Your task to perform on an android device: Open accessibility settings Image 0: 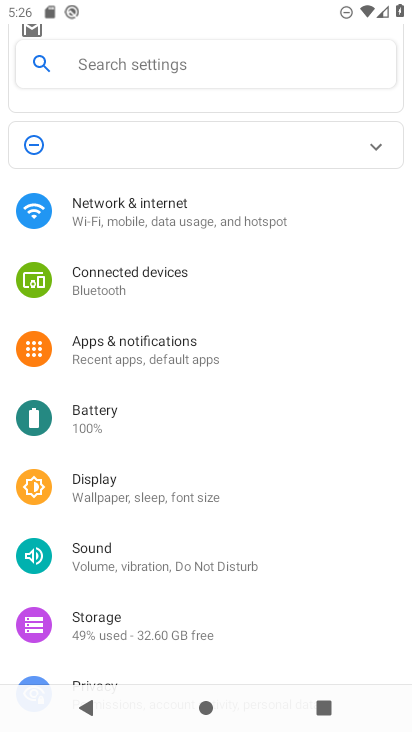
Step 0: drag from (122, 620) to (228, 463)
Your task to perform on an android device: Open accessibility settings Image 1: 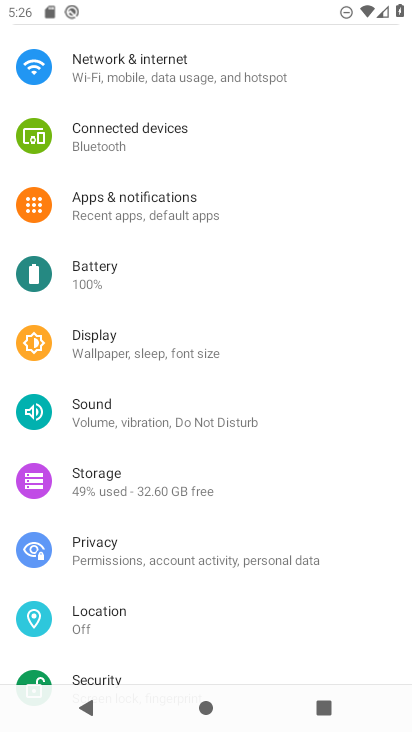
Step 1: drag from (158, 580) to (248, 435)
Your task to perform on an android device: Open accessibility settings Image 2: 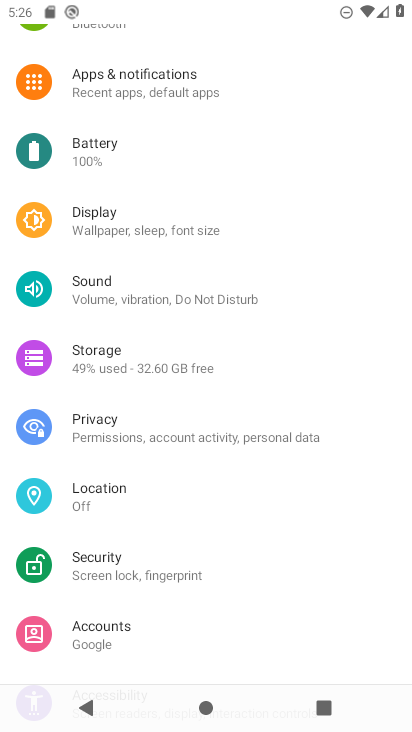
Step 2: drag from (150, 597) to (223, 502)
Your task to perform on an android device: Open accessibility settings Image 3: 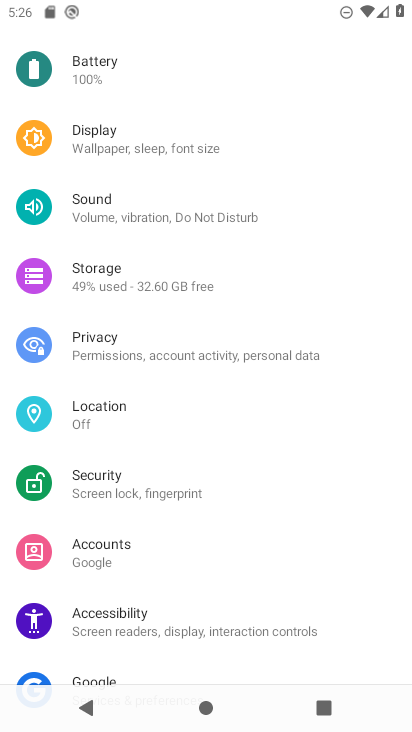
Step 3: drag from (179, 580) to (229, 487)
Your task to perform on an android device: Open accessibility settings Image 4: 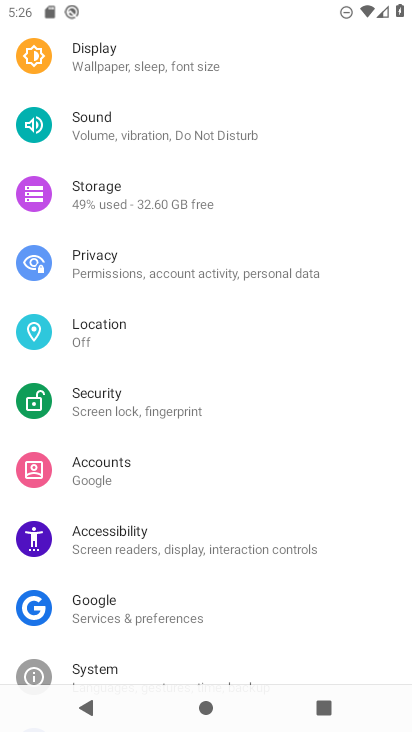
Step 4: drag from (152, 579) to (204, 496)
Your task to perform on an android device: Open accessibility settings Image 5: 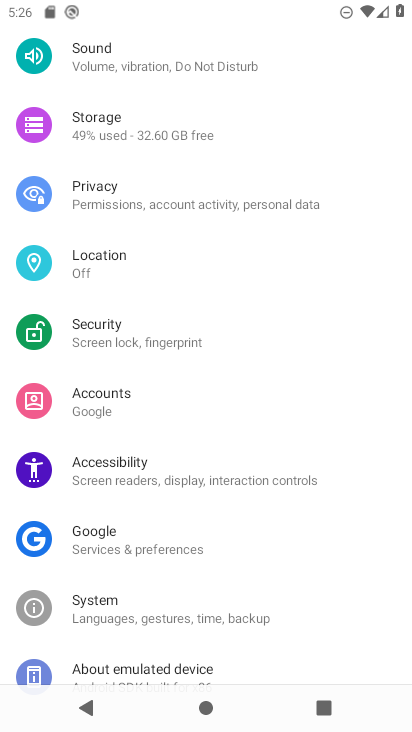
Step 5: drag from (157, 583) to (204, 512)
Your task to perform on an android device: Open accessibility settings Image 6: 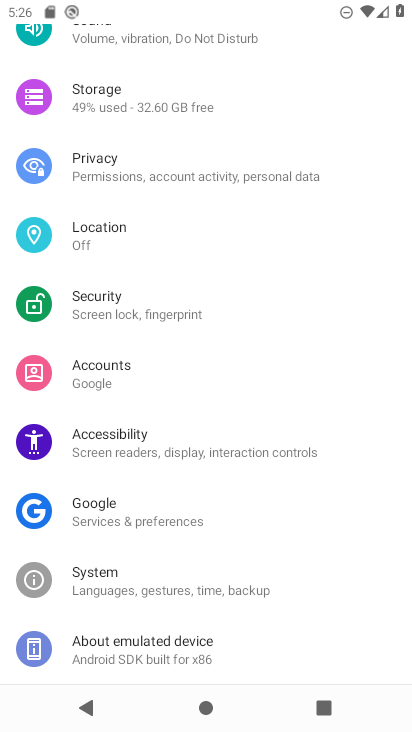
Step 6: click (176, 455)
Your task to perform on an android device: Open accessibility settings Image 7: 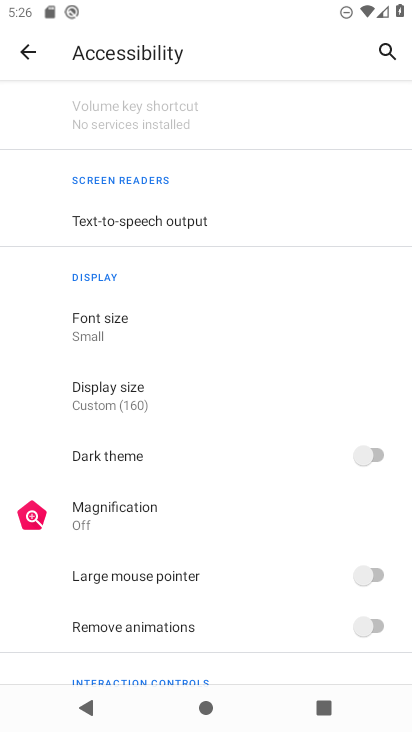
Step 7: task complete